Your task to perform on an android device: Show me popular games on the Play Store Image 0: 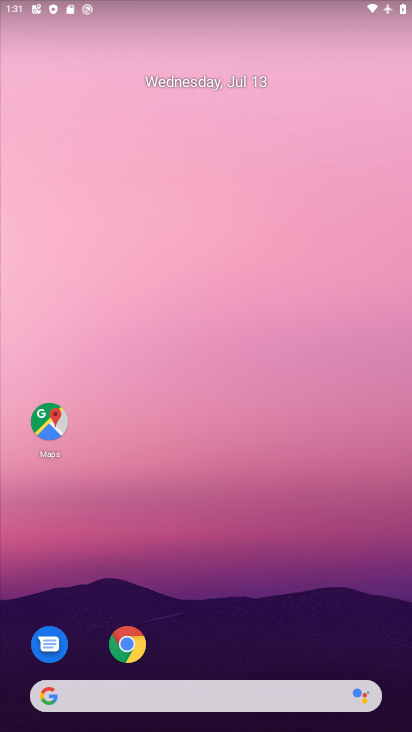
Step 0: drag from (287, 612) to (252, 129)
Your task to perform on an android device: Show me popular games on the Play Store Image 1: 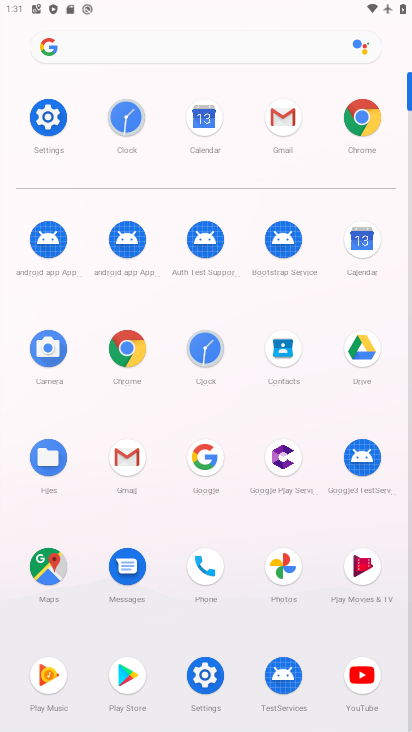
Step 1: click (133, 679)
Your task to perform on an android device: Show me popular games on the Play Store Image 2: 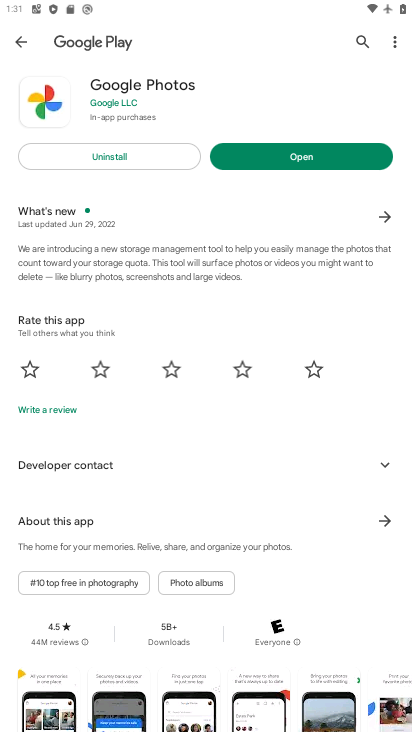
Step 2: click (26, 38)
Your task to perform on an android device: Show me popular games on the Play Store Image 3: 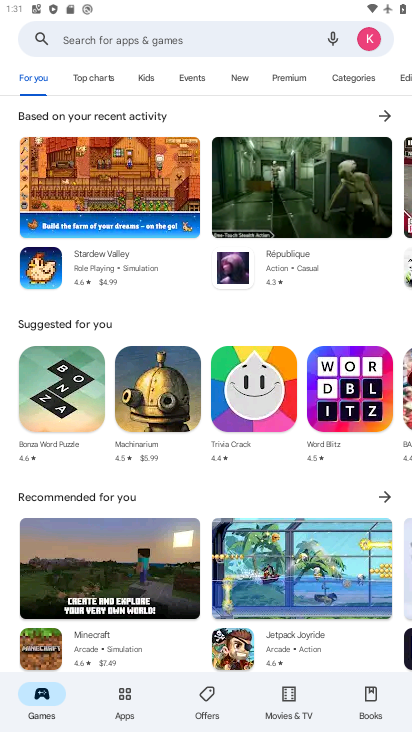
Step 3: task complete